Your task to perform on an android device: What is the news today? Image 0: 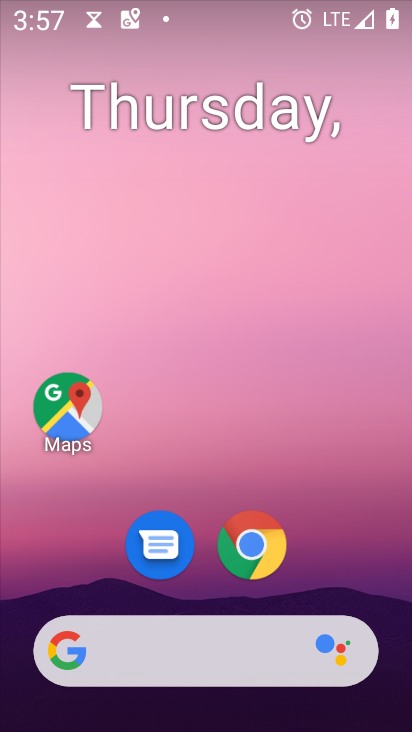
Step 0: click (252, 548)
Your task to perform on an android device: What is the news today? Image 1: 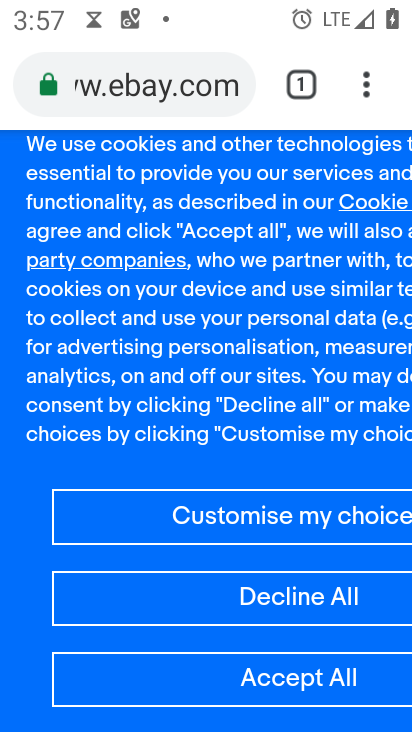
Step 1: task complete